Your task to perform on an android device: Set an alarm for 6am Image 0: 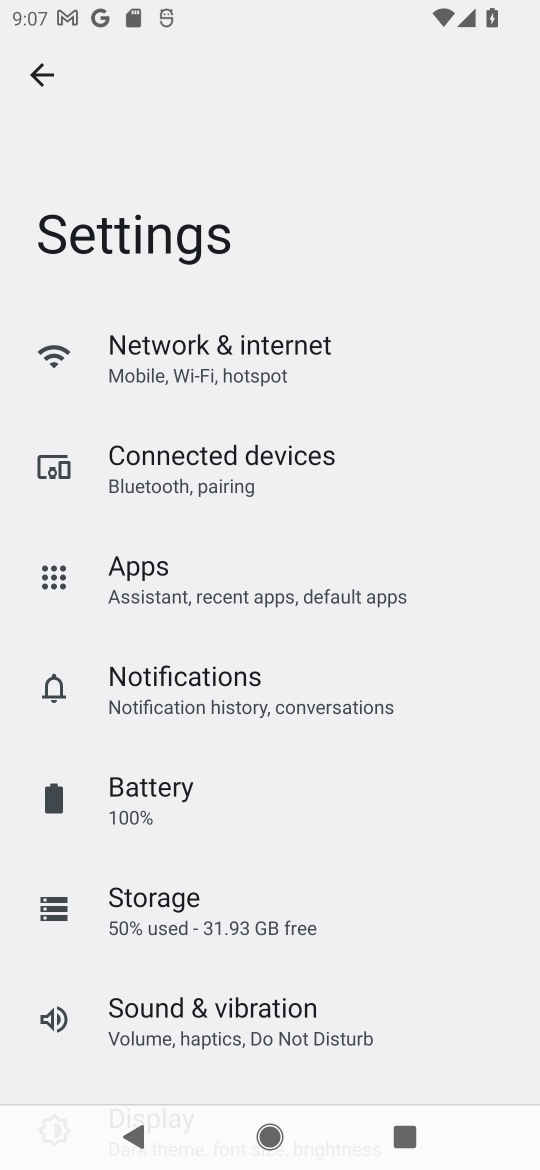
Step 0: press home button
Your task to perform on an android device: Set an alarm for 6am Image 1: 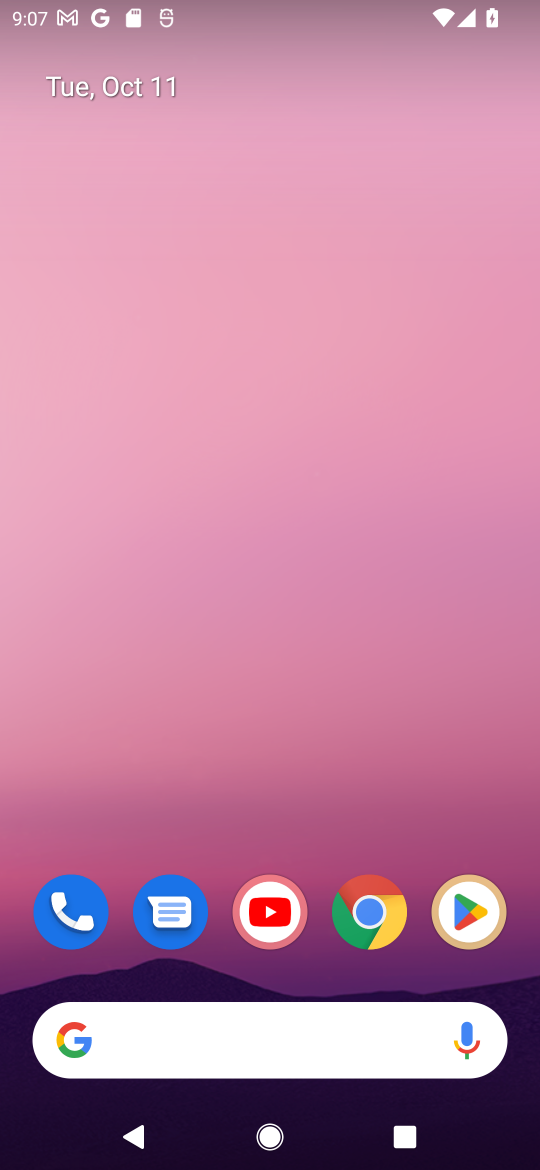
Step 1: drag from (318, 975) to (255, 132)
Your task to perform on an android device: Set an alarm for 6am Image 2: 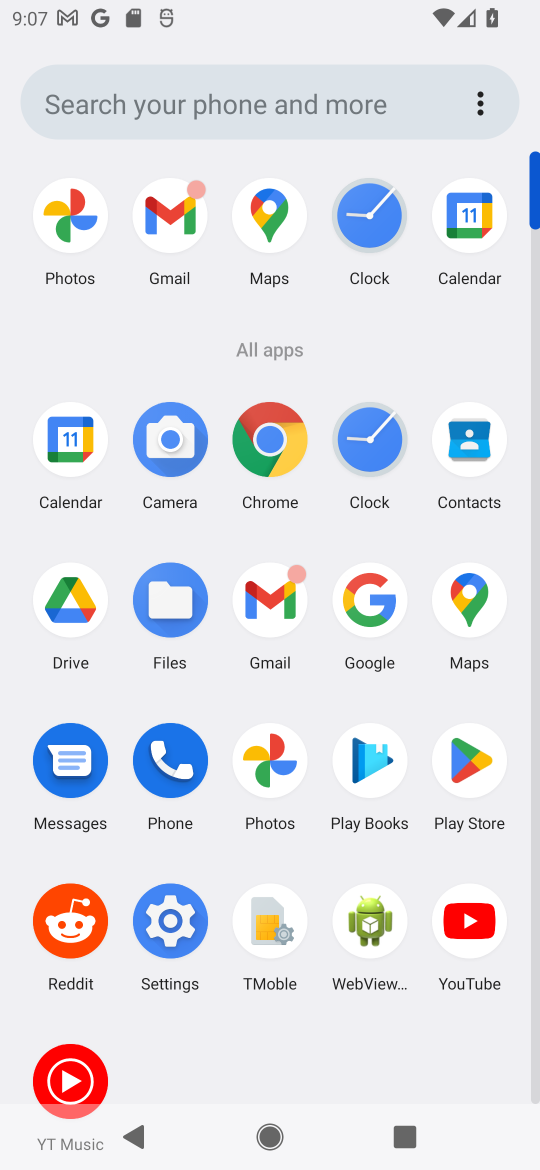
Step 2: click (373, 212)
Your task to perform on an android device: Set an alarm for 6am Image 3: 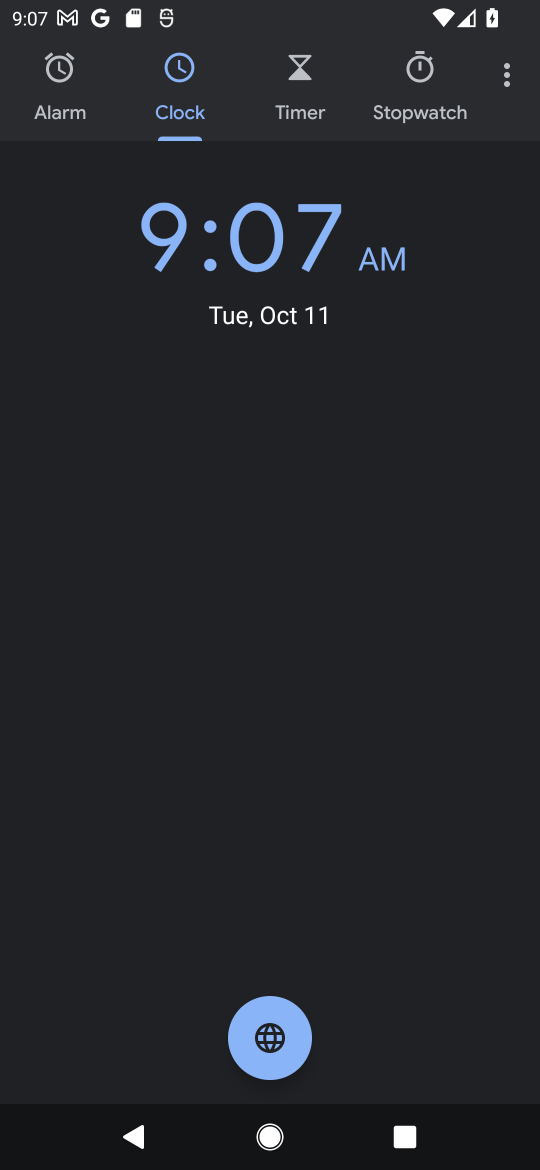
Step 3: click (59, 76)
Your task to perform on an android device: Set an alarm for 6am Image 4: 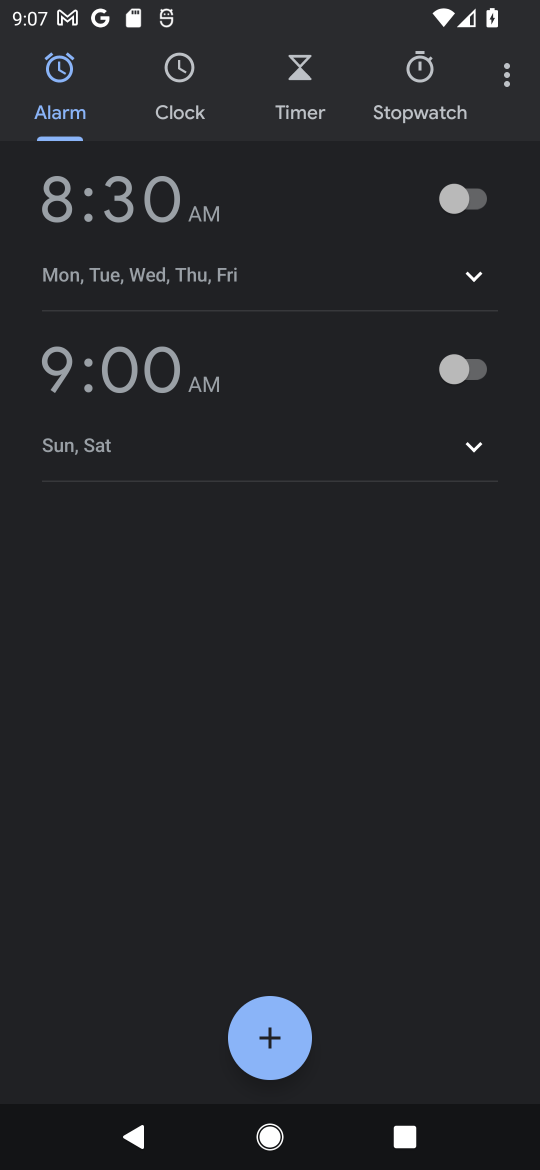
Step 4: click (119, 330)
Your task to perform on an android device: Set an alarm for 6am Image 5: 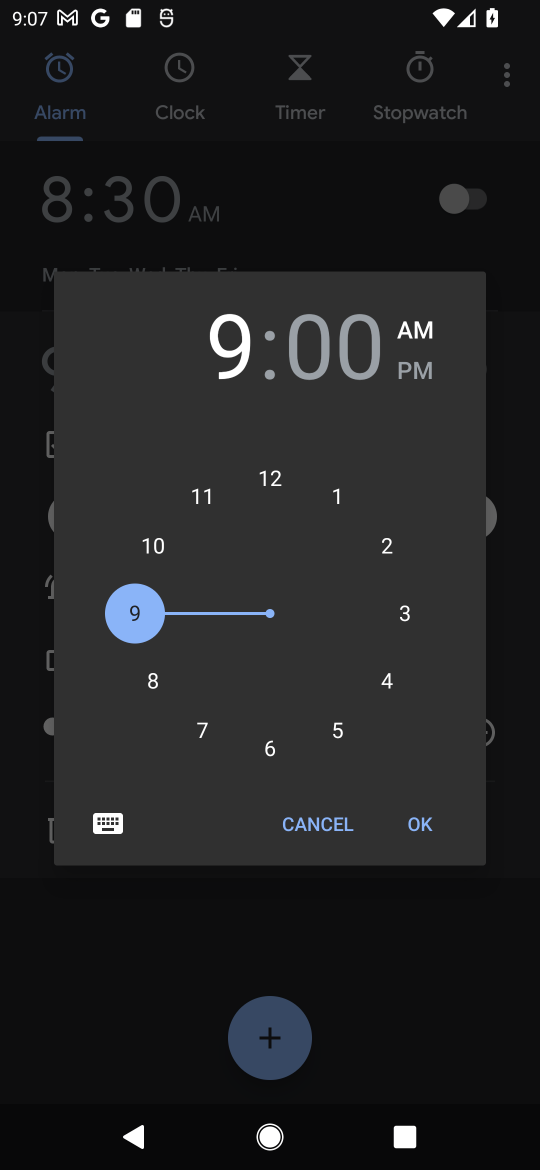
Step 5: click (269, 758)
Your task to perform on an android device: Set an alarm for 6am Image 6: 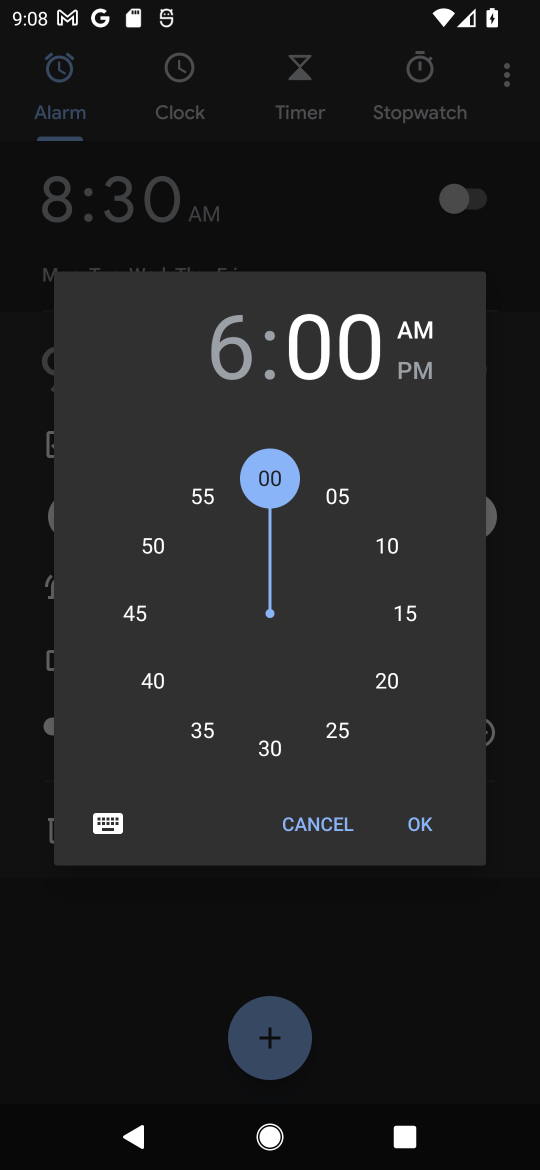
Step 6: click (417, 821)
Your task to perform on an android device: Set an alarm for 6am Image 7: 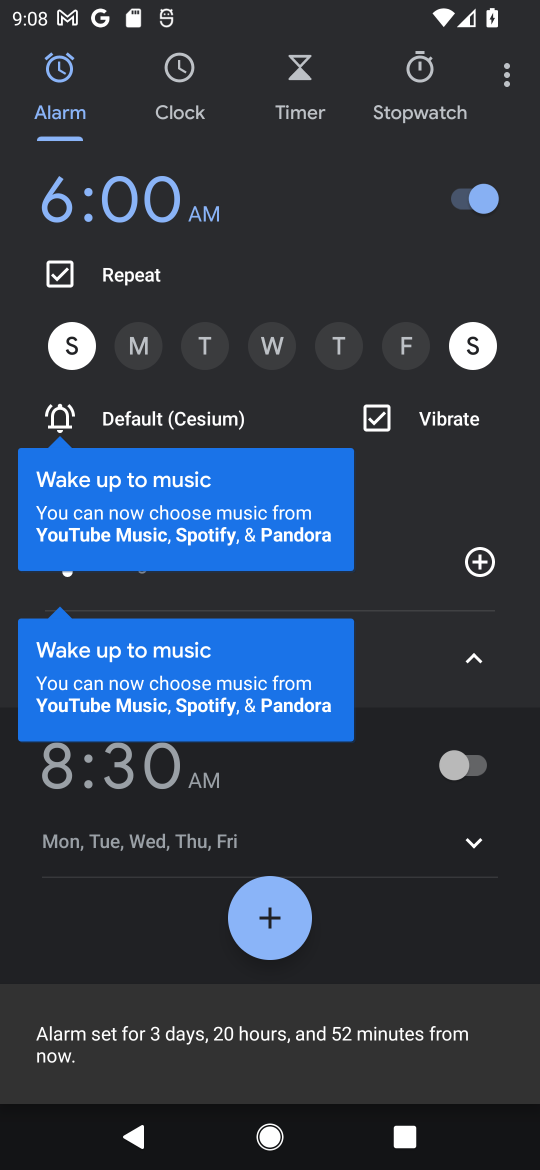
Step 7: click (136, 349)
Your task to perform on an android device: Set an alarm for 6am Image 8: 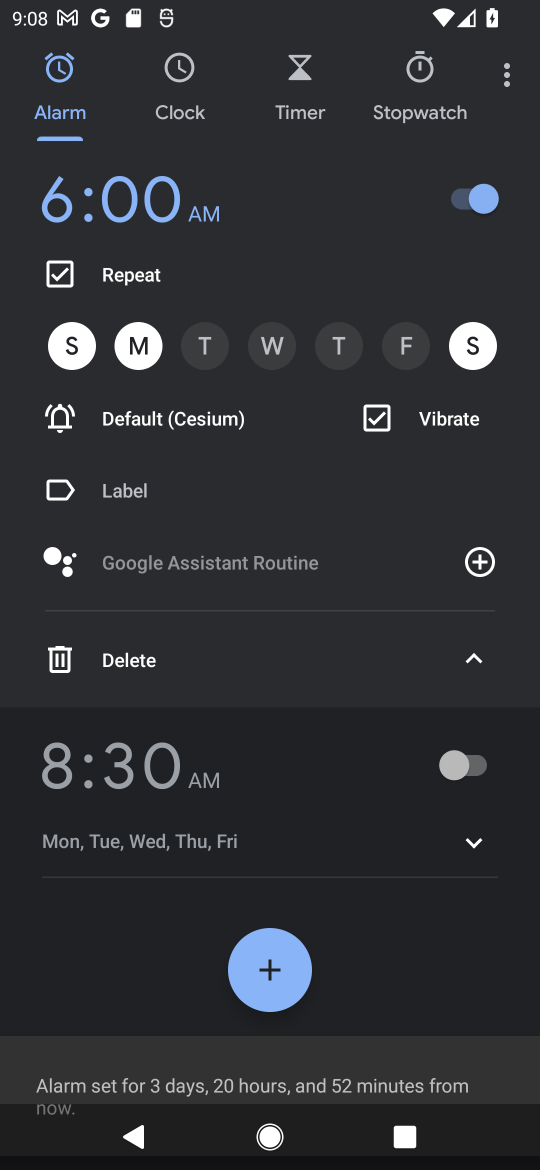
Step 8: click (219, 341)
Your task to perform on an android device: Set an alarm for 6am Image 9: 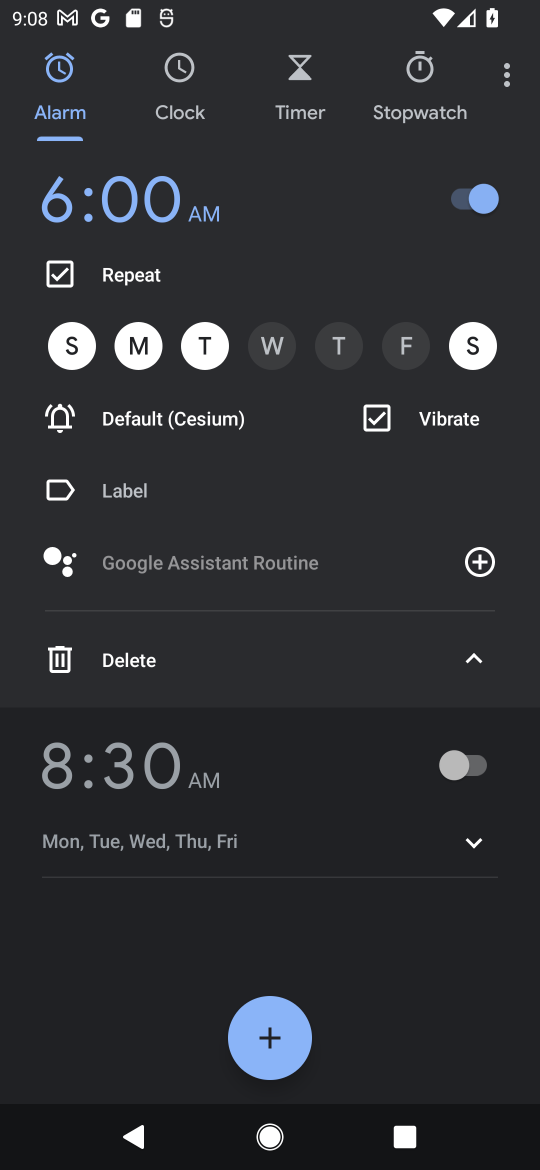
Step 9: click (268, 340)
Your task to perform on an android device: Set an alarm for 6am Image 10: 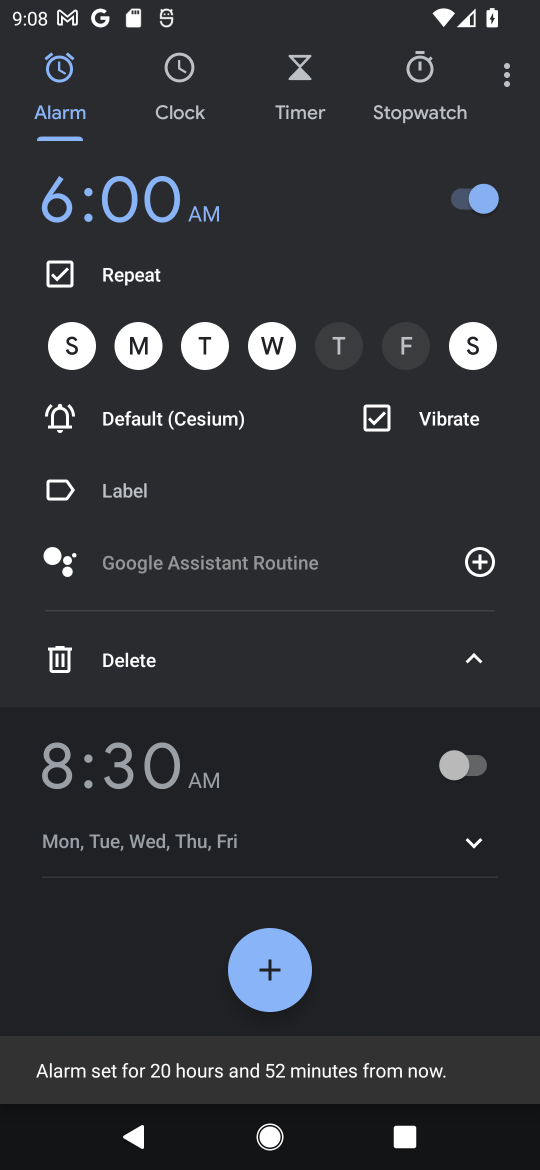
Step 10: click (360, 341)
Your task to perform on an android device: Set an alarm for 6am Image 11: 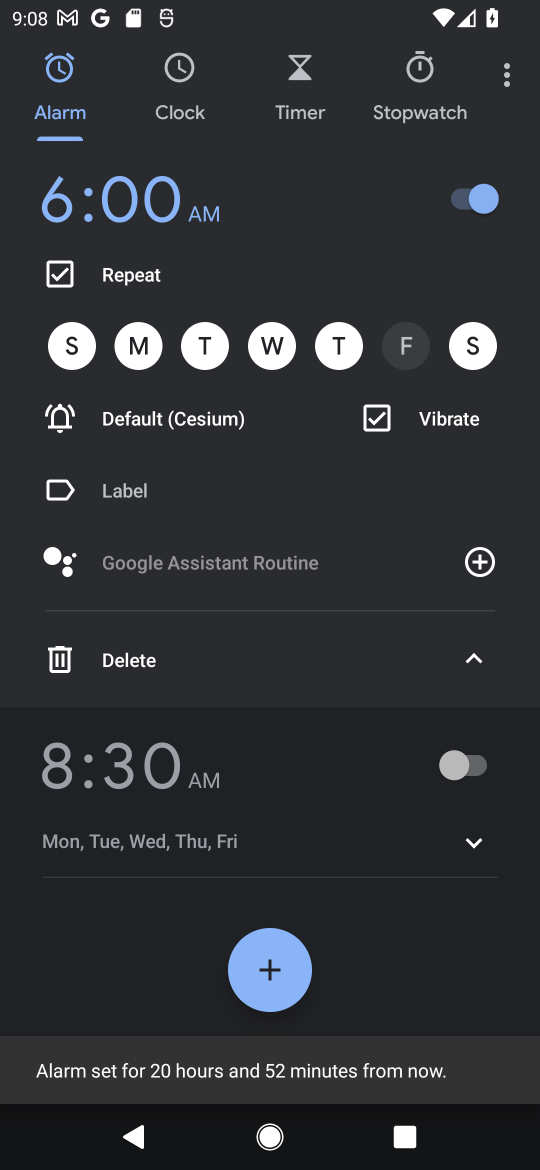
Step 11: click (397, 341)
Your task to perform on an android device: Set an alarm for 6am Image 12: 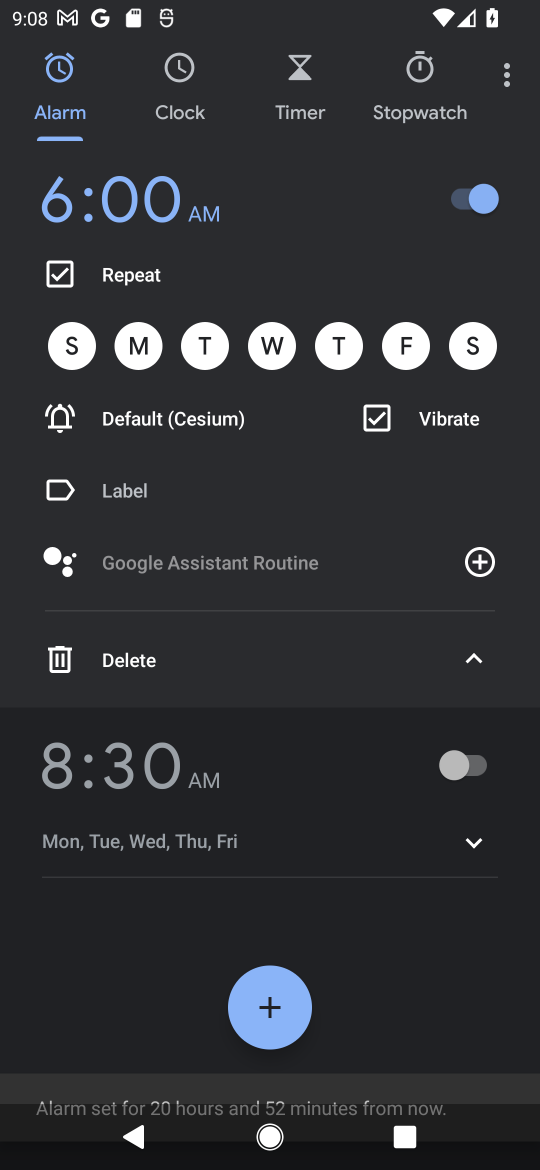
Step 12: click (57, 343)
Your task to perform on an android device: Set an alarm for 6am Image 13: 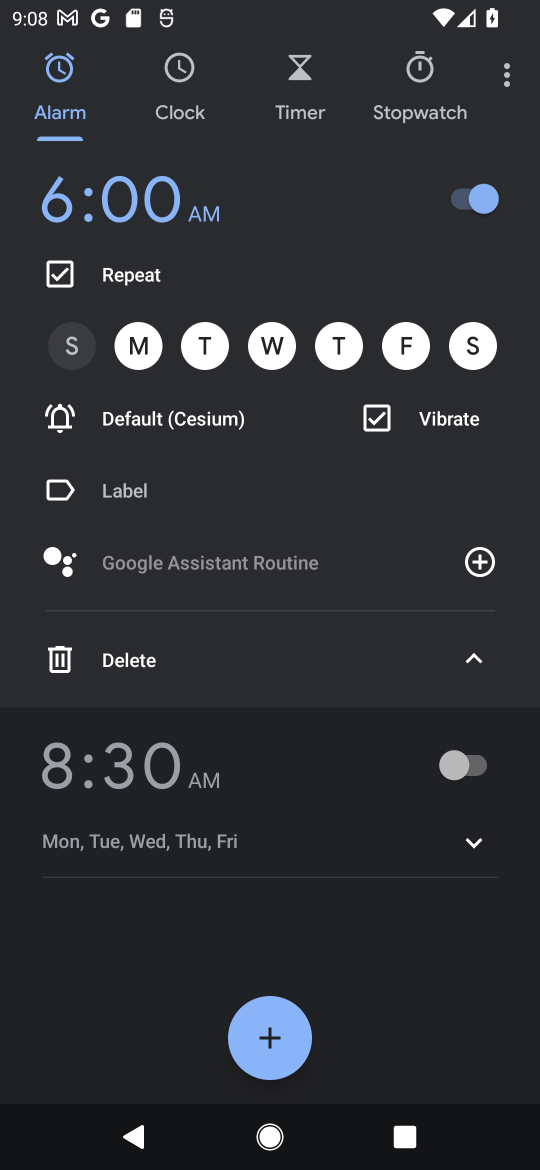
Step 13: click (472, 661)
Your task to perform on an android device: Set an alarm for 6am Image 14: 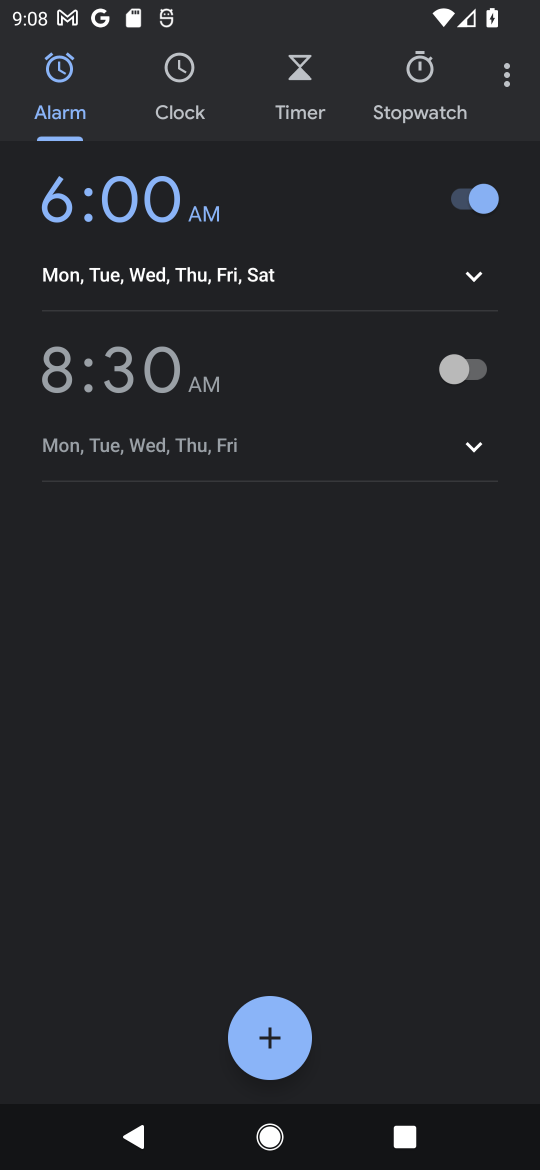
Step 14: task complete